Your task to perform on an android device: choose inbox layout in the gmail app Image 0: 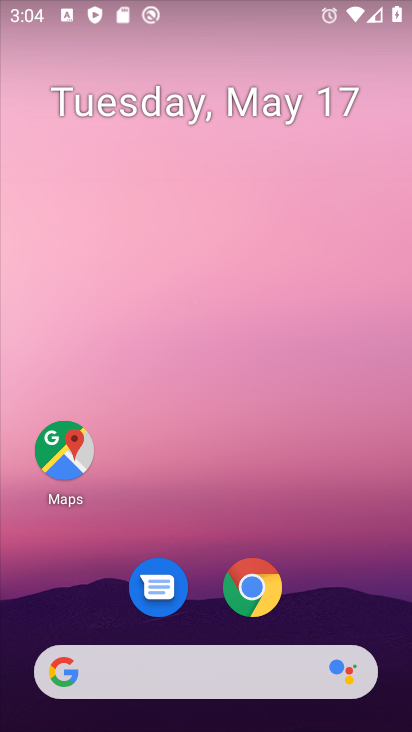
Step 0: drag from (210, 608) to (200, 1)
Your task to perform on an android device: choose inbox layout in the gmail app Image 1: 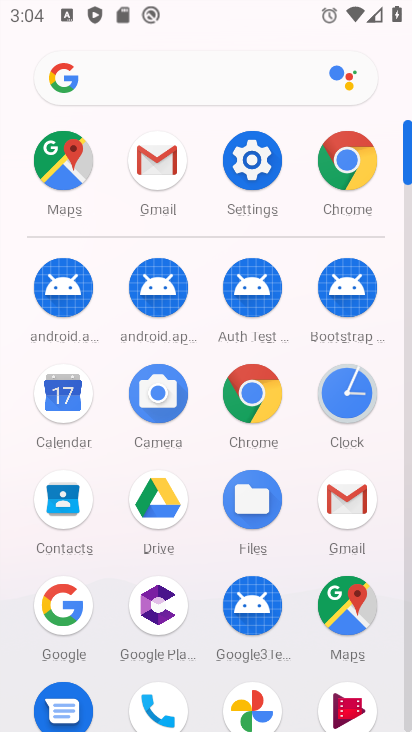
Step 1: click (332, 523)
Your task to perform on an android device: choose inbox layout in the gmail app Image 2: 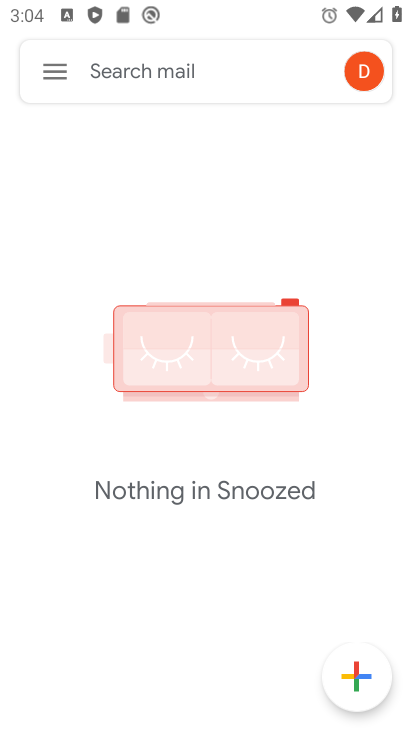
Step 2: click (48, 74)
Your task to perform on an android device: choose inbox layout in the gmail app Image 3: 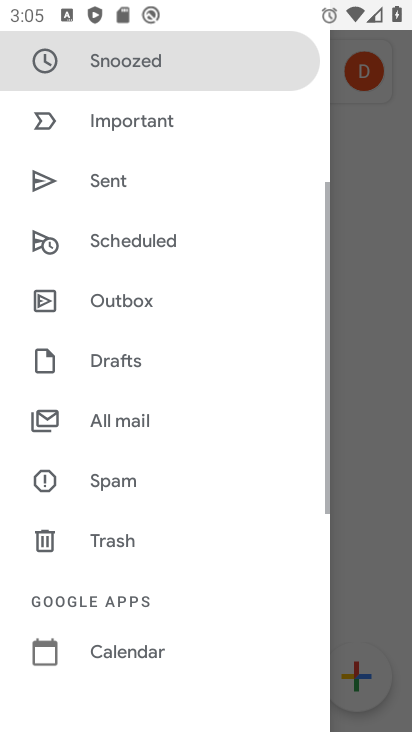
Step 3: drag from (176, 96) to (199, 651)
Your task to perform on an android device: choose inbox layout in the gmail app Image 4: 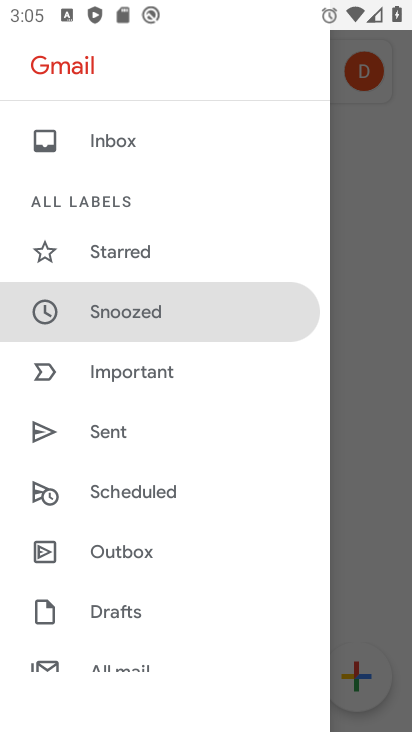
Step 4: click (127, 138)
Your task to perform on an android device: choose inbox layout in the gmail app Image 5: 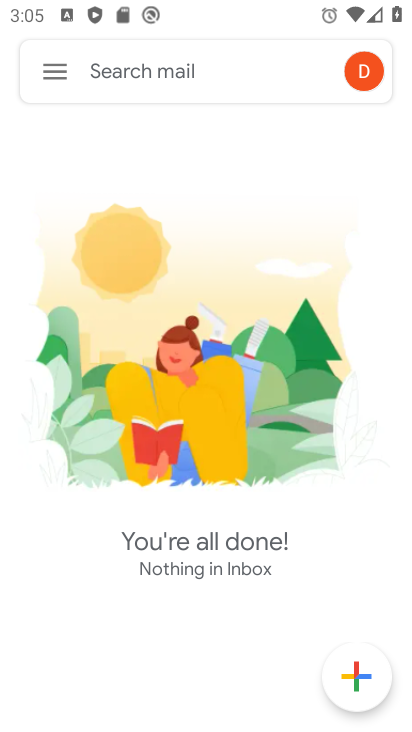
Step 5: click (52, 67)
Your task to perform on an android device: choose inbox layout in the gmail app Image 6: 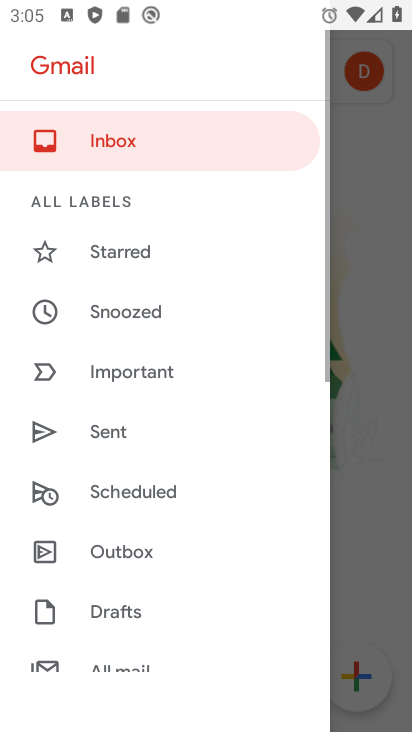
Step 6: click (130, 138)
Your task to perform on an android device: choose inbox layout in the gmail app Image 7: 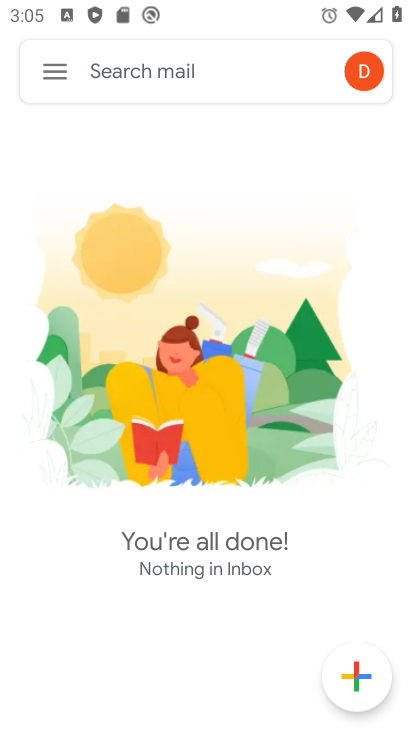
Step 7: task complete